Your task to perform on an android device: turn on sleep mode Image 0: 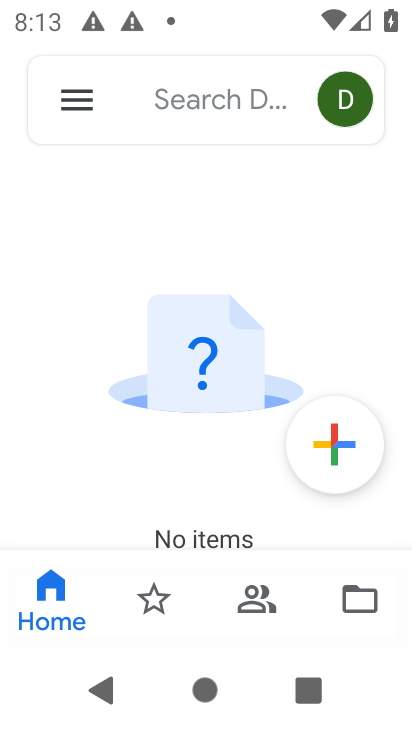
Step 0: press home button
Your task to perform on an android device: turn on sleep mode Image 1: 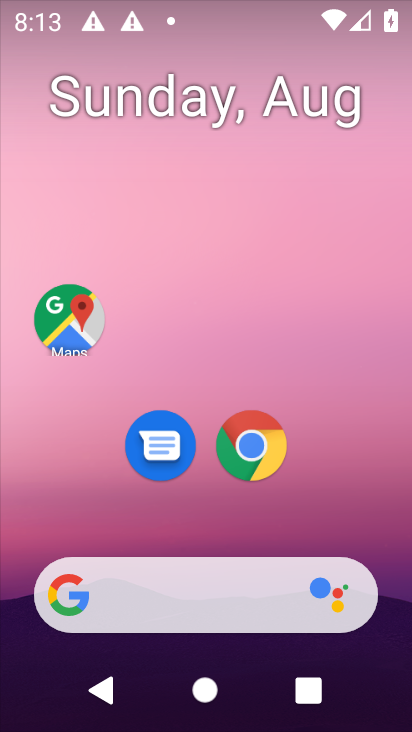
Step 1: drag from (211, 524) to (210, 85)
Your task to perform on an android device: turn on sleep mode Image 2: 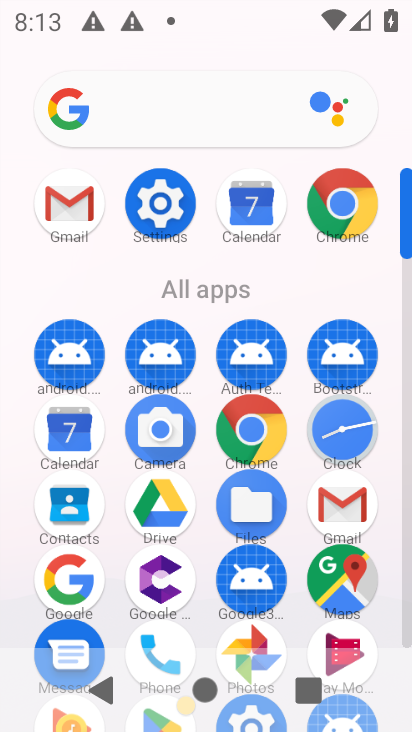
Step 2: click (160, 196)
Your task to perform on an android device: turn on sleep mode Image 3: 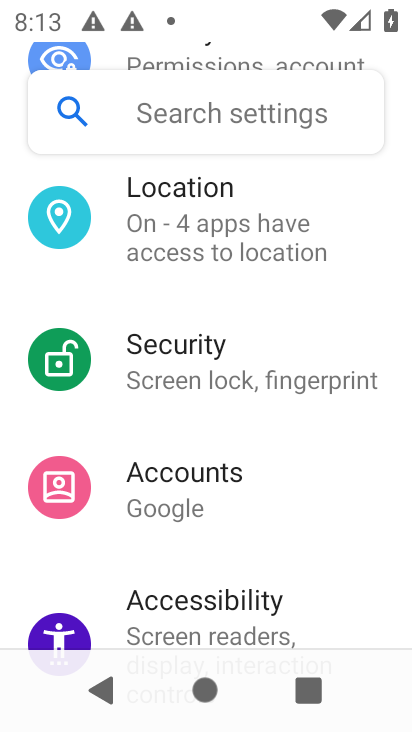
Step 3: drag from (155, 204) to (138, 533)
Your task to perform on an android device: turn on sleep mode Image 4: 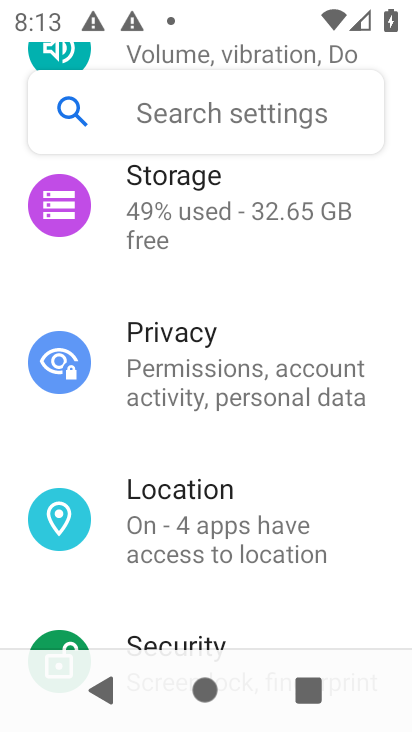
Step 4: drag from (149, 206) to (146, 547)
Your task to perform on an android device: turn on sleep mode Image 5: 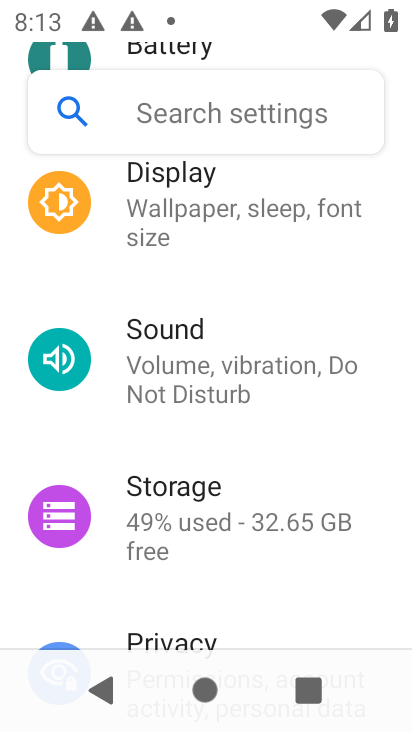
Step 5: click (134, 209)
Your task to perform on an android device: turn on sleep mode Image 6: 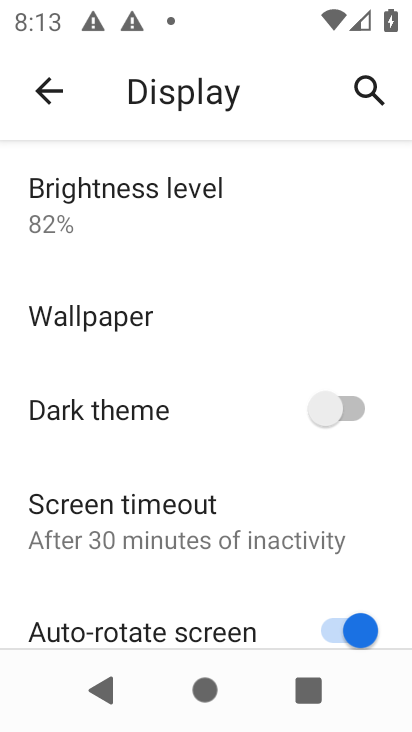
Step 6: drag from (169, 589) to (148, 288)
Your task to perform on an android device: turn on sleep mode Image 7: 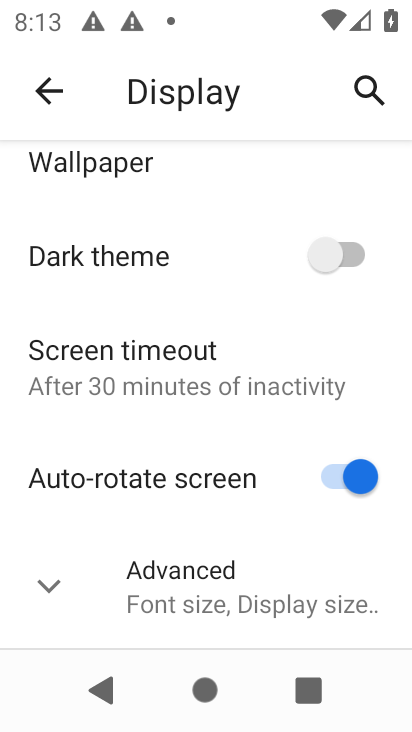
Step 7: click (51, 575)
Your task to perform on an android device: turn on sleep mode Image 8: 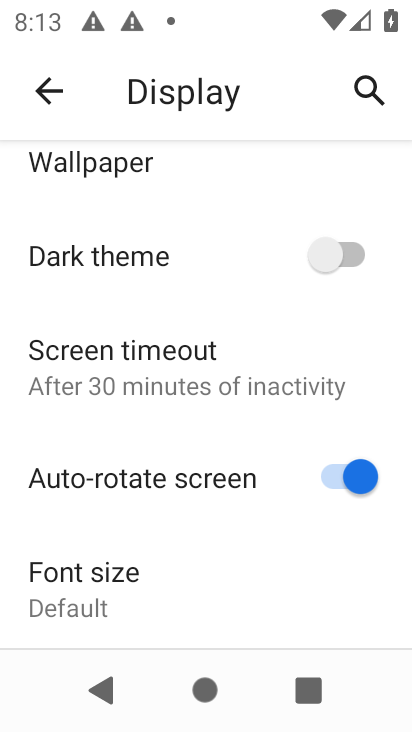
Step 8: task complete